Your task to perform on an android device: Play the last video I watched on Youtube Image 0: 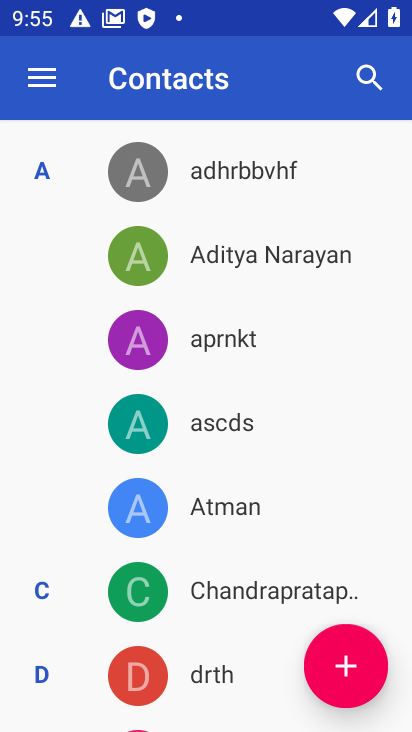
Step 0: press home button
Your task to perform on an android device: Play the last video I watched on Youtube Image 1: 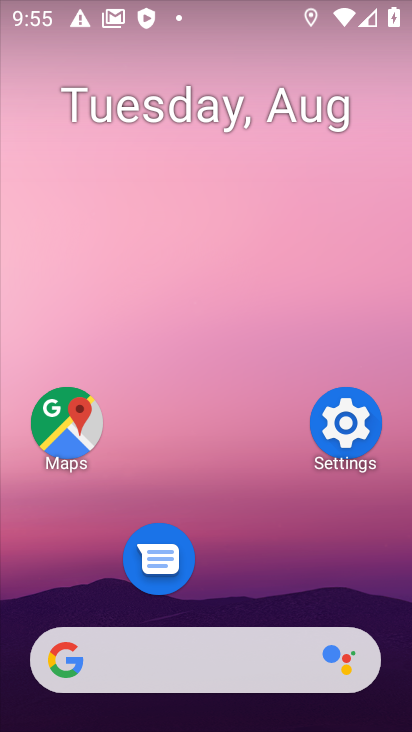
Step 1: drag from (202, 657) to (352, 161)
Your task to perform on an android device: Play the last video I watched on Youtube Image 2: 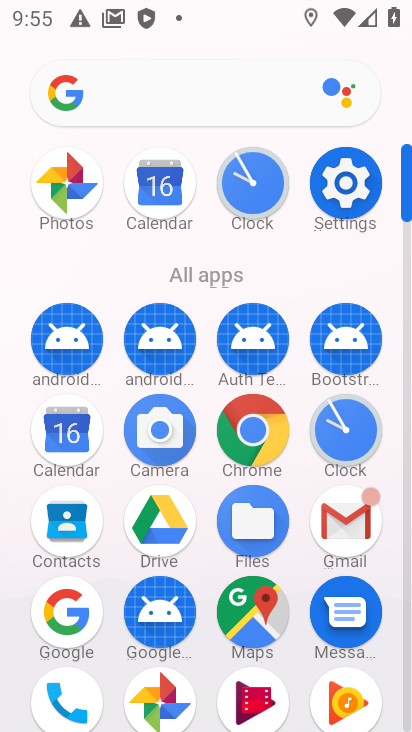
Step 2: drag from (205, 644) to (348, 119)
Your task to perform on an android device: Play the last video I watched on Youtube Image 3: 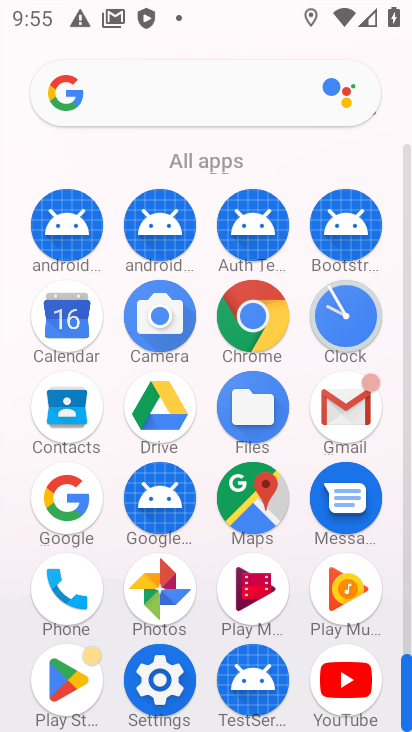
Step 3: click (338, 673)
Your task to perform on an android device: Play the last video I watched on Youtube Image 4: 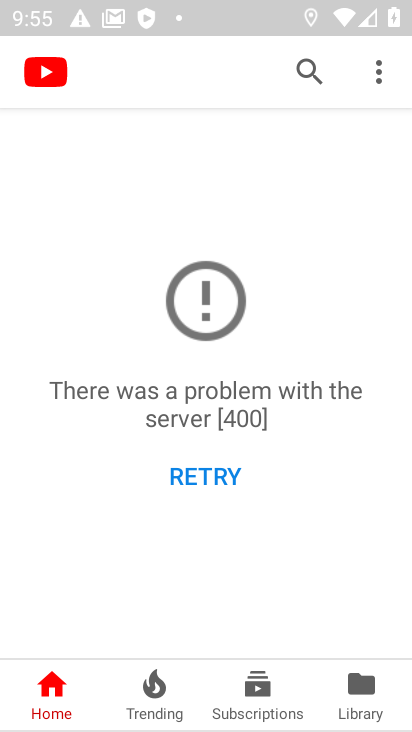
Step 4: click (192, 473)
Your task to perform on an android device: Play the last video I watched on Youtube Image 5: 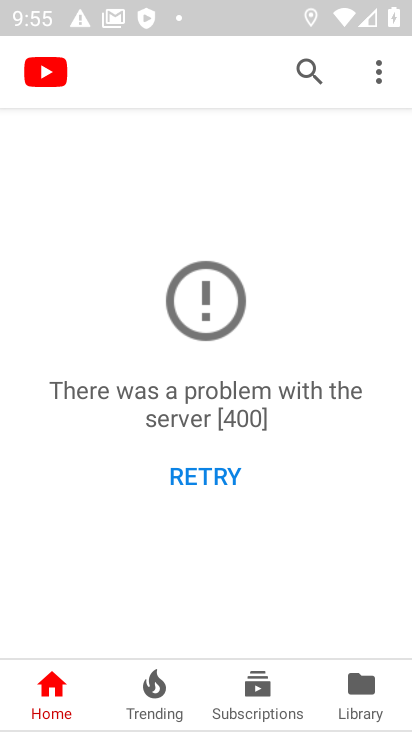
Step 5: click (192, 473)
Your task to perform on an android device: Play the last video I watched on Youtube Image 6: 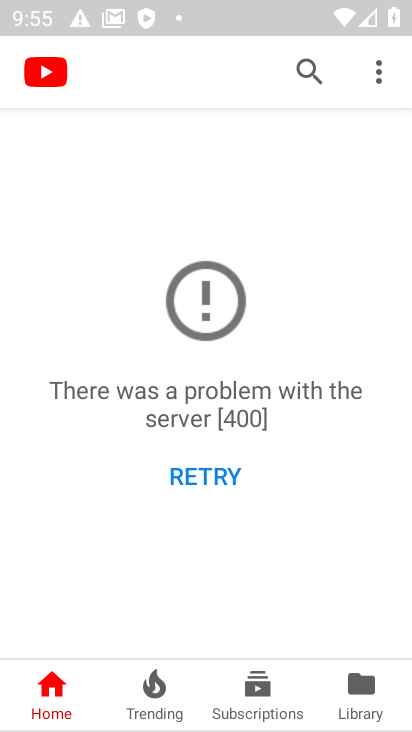
Step 6: click (206, 466)
Your task to perform on an android device: Play the last video I watched on Youtube Image 7: 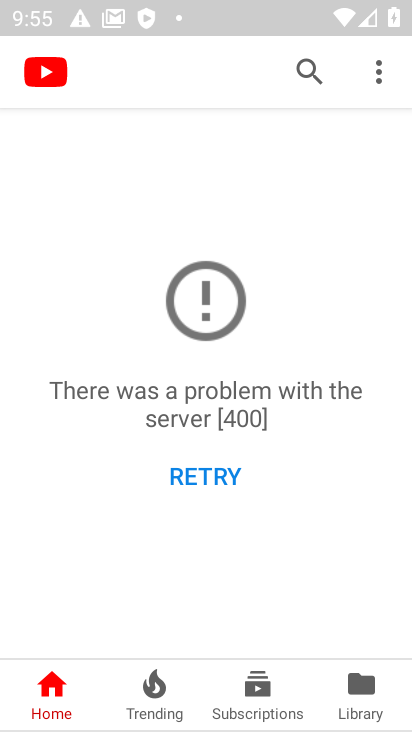
Step 7: task complete